Your task to perform on an android device: Open network settings Image 0: 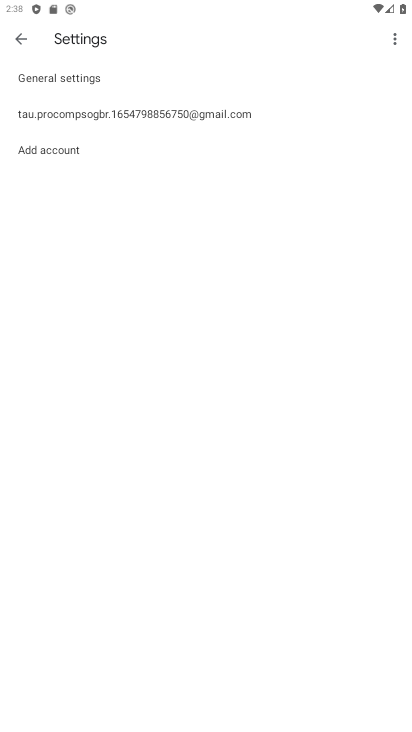
Step 0: press back button
Your task to perform on an android device: Open network settings Image 1: 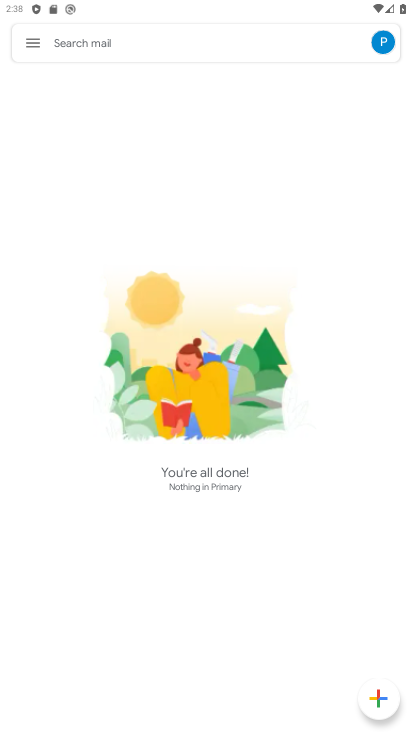
Step 1: press back button
Your task to perform on an android device: Open network settings Image 2: 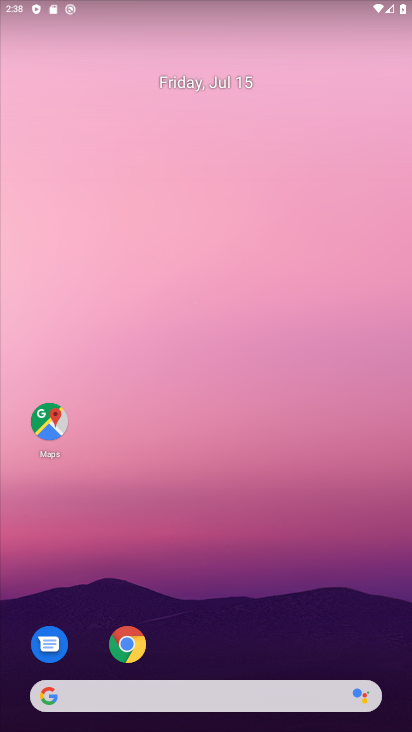
Step 2: drag from (195, 616) to (195, 38)
Your task to perform on an android device: Open network settings Image 3: 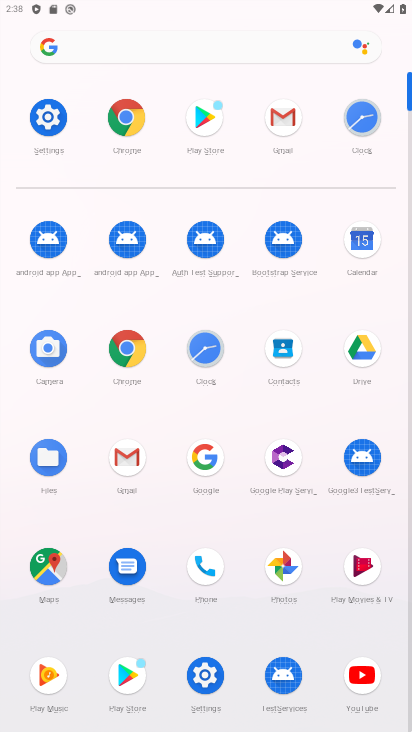
Step 3: click (60, 111)
Your task to perform on an android device: Open network settings Image 4: 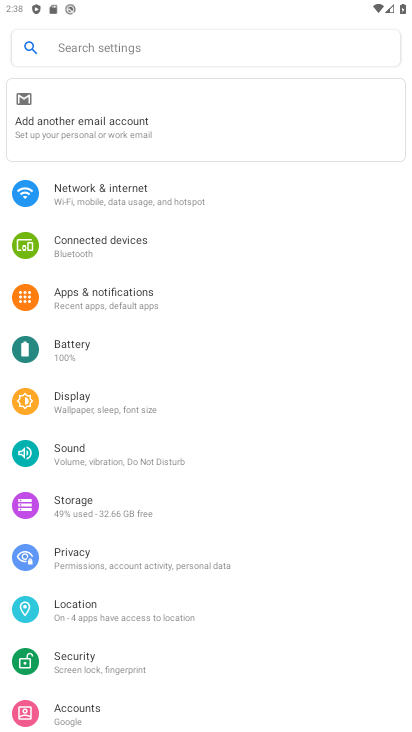
Step 4: click (92, 193)
Your task to perform on an android device: Open network settings Image 5: 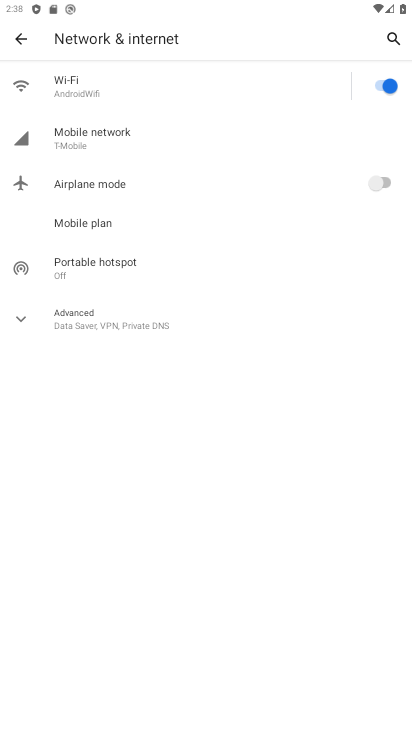
Step 5: task complete